Your task to perform on an android device: toggle improve location accuracy Image 0: 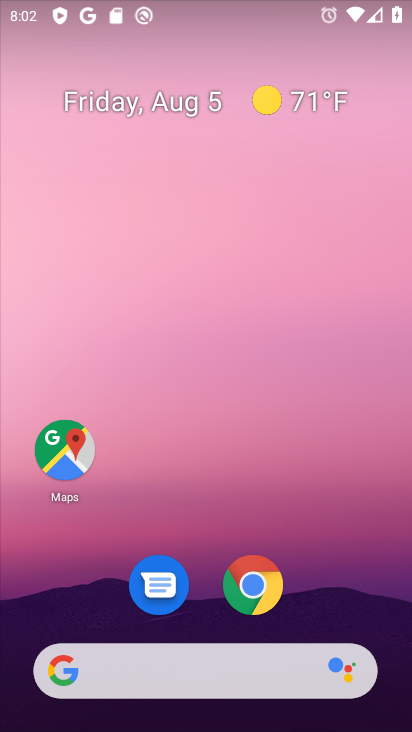
Step 0: drag from (343, 557) to (318, 32)
Your task to perform on an android device: toggle improve location accuracy Image 1: 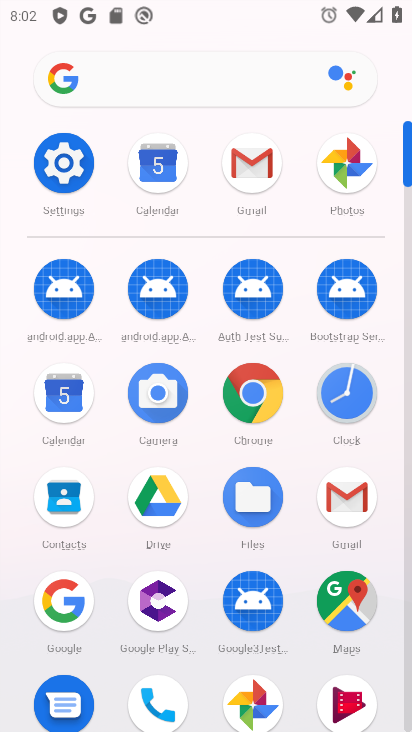
Step 1: click (63, 149)
Your task to perform on an android device: toggle improve location accuracy Image 2: 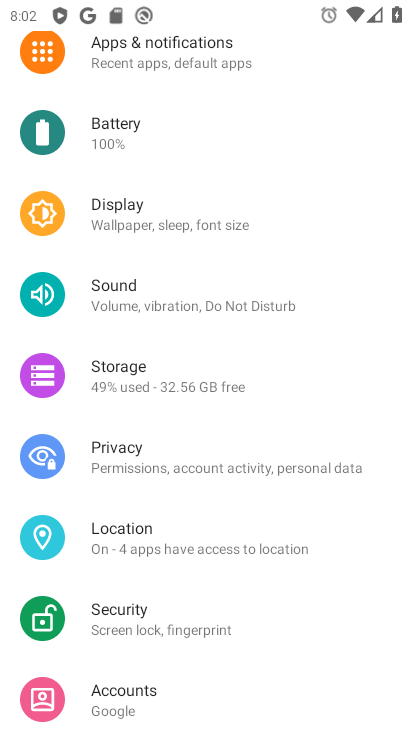
Step 2: click (182, 519)
Your task to perform on an android device: toggle improve location accuracy Image 3: 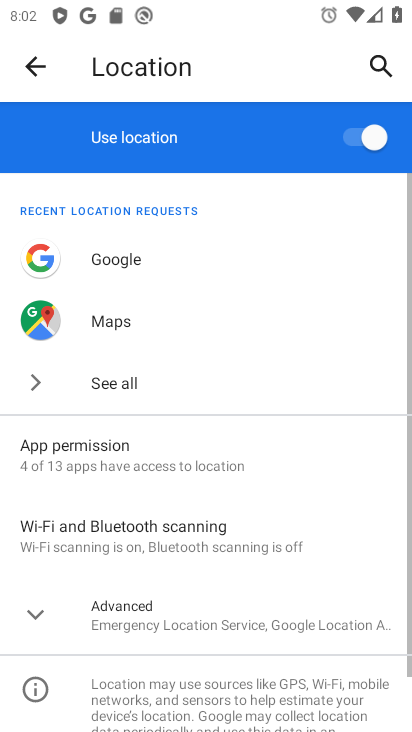
Step 3: click (31, 602)
Your task to perform on an android device: toggle improve location accuracy Image 4: 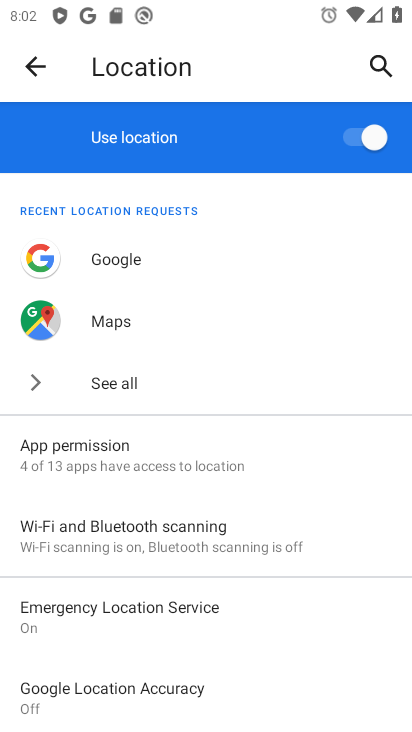
Step 4: click (208, 693)
Your task to perform on an android device: toggle improve location accuracy Image 5: 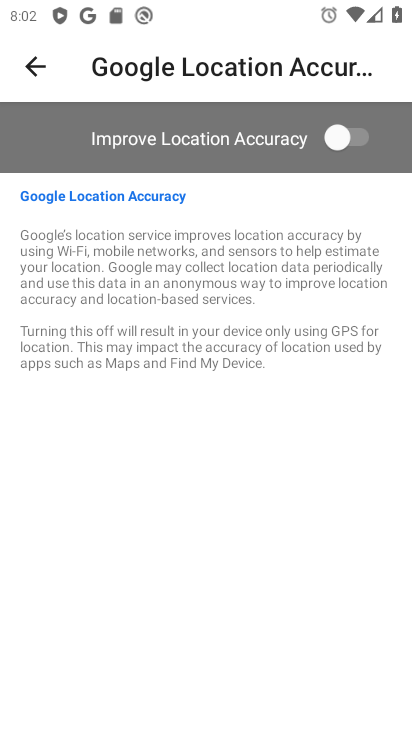
Step 5: click (347, 138)
Your task to perform on an android device: toggle improve location accuracy Image 6: 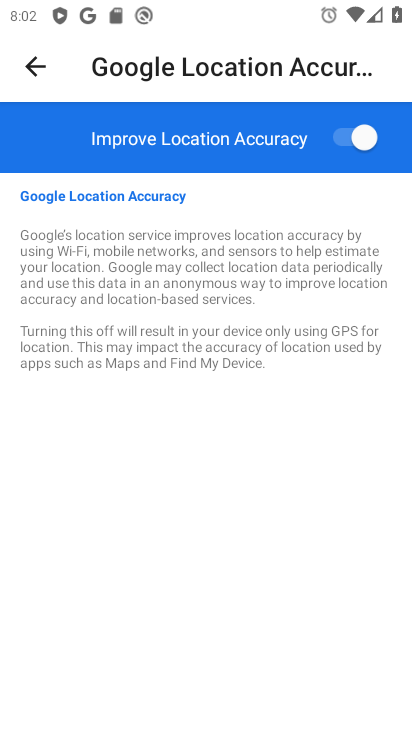
Step 6: task complete